Your task to perform on an android device: Go to network settings Image 0: 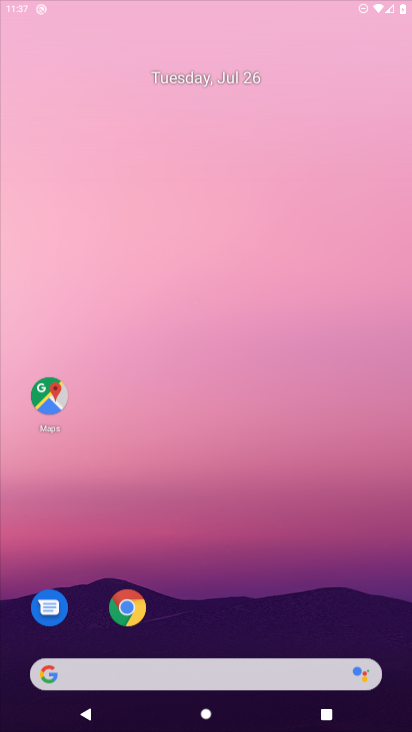
Step 0: click (343, 436)
Your task to perform on an android device: Go to network settings Image 1: 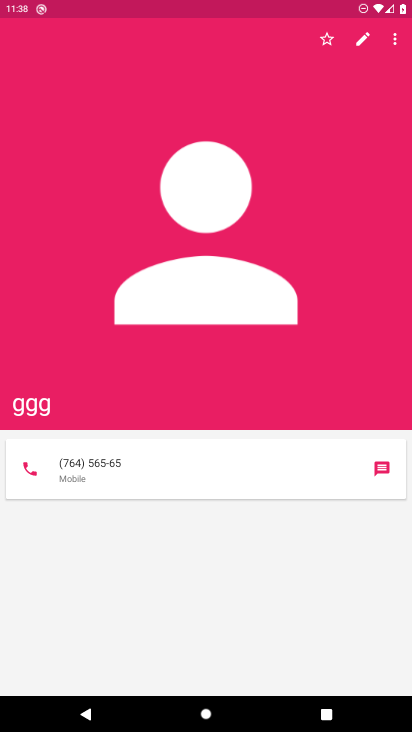
Step 1: drag from (213, 667) to (296, 266)
Your task to perform on an android device: Go to network settings Image 2: 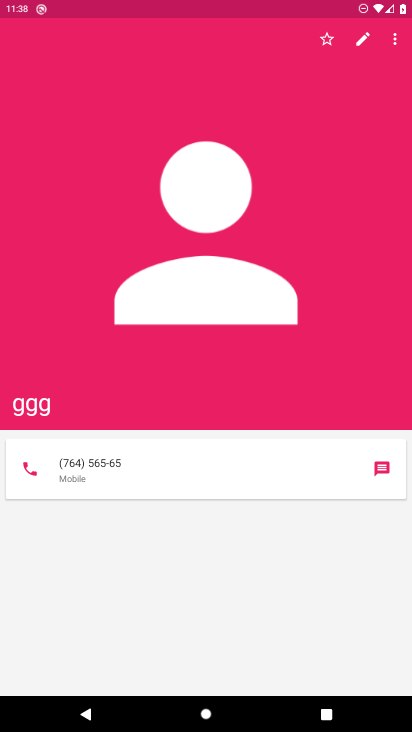
Step 2: press home button
Your task to perform on an android device: Go to network settings Image 3: 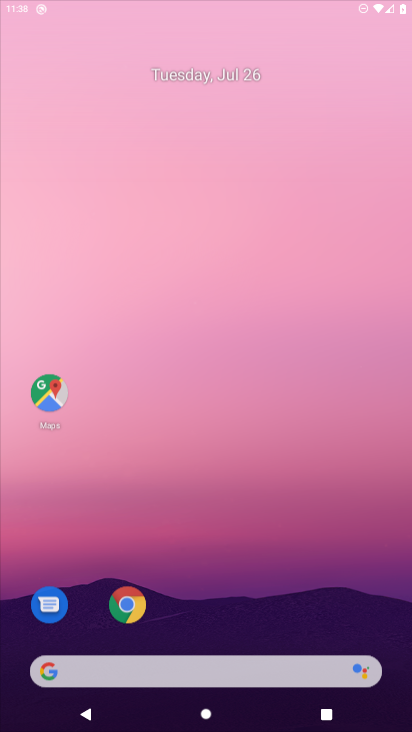
Step 3: drag from (167, 600) to (237, 182)
Your task to perform on an android device: Go to network settings Image 4: 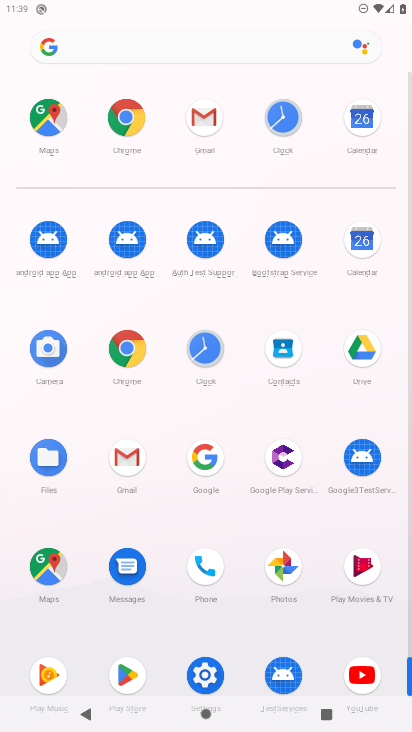
Step 4: click (196, 670)
Your task to perform on an android device: Go to network settings Image 5: 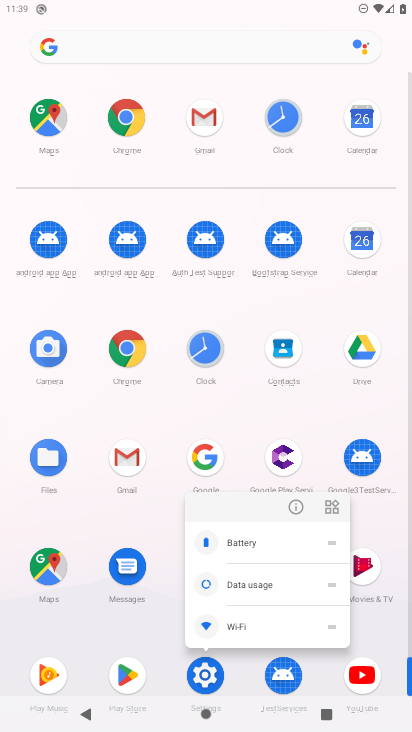
Step 5: click (292, 504)
Your task to perform on an android device: Go to network settings Image 6: 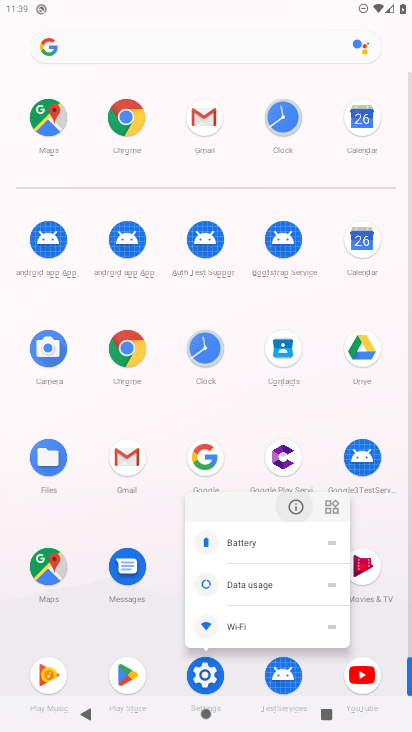
Step 6: click (292, 504)
Your task to perform on an android device: Go to network settings Image 7: 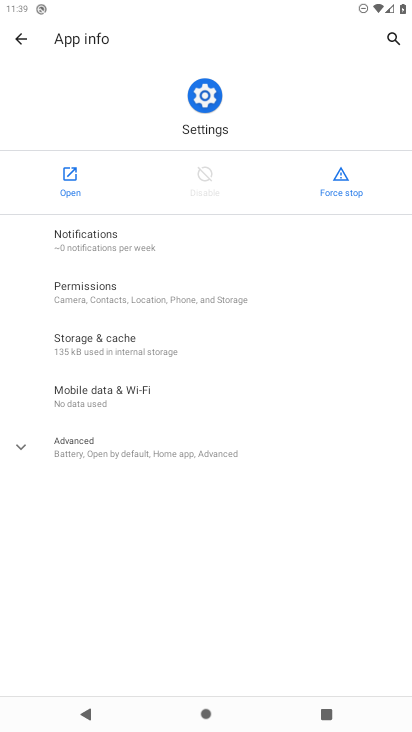
Step 7: click (68, 189)
Your task to perform on an android device: Go to network settings Image 8: 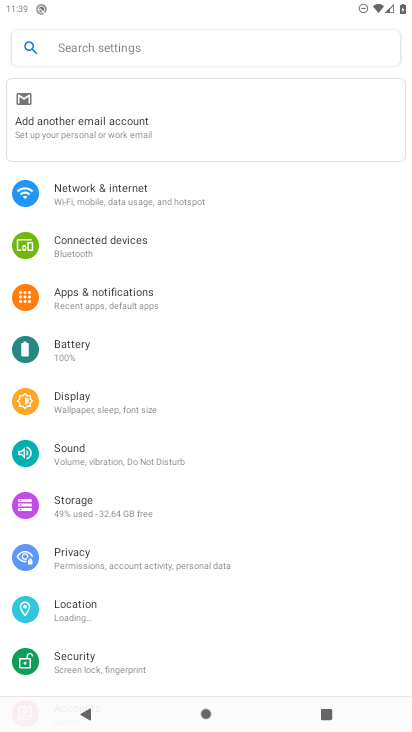
Step 8: click (140, 197)
Your task to perform on an android device: Go to network settings Image 9: 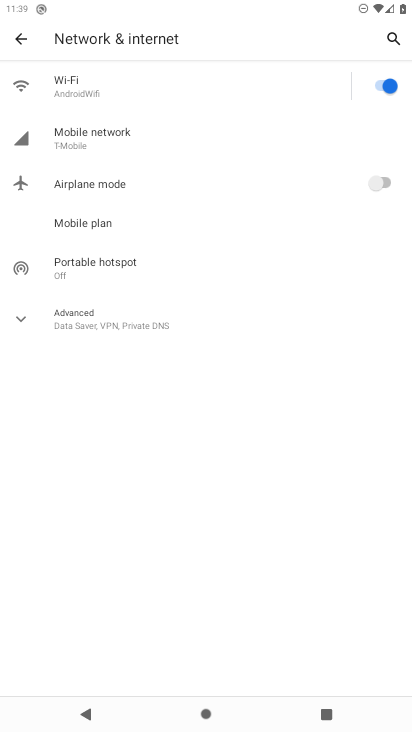
Step 9: task complete